Your task to perform on an android device: Open the calendar app, open the side menu, and click the "Day" option Image 0: 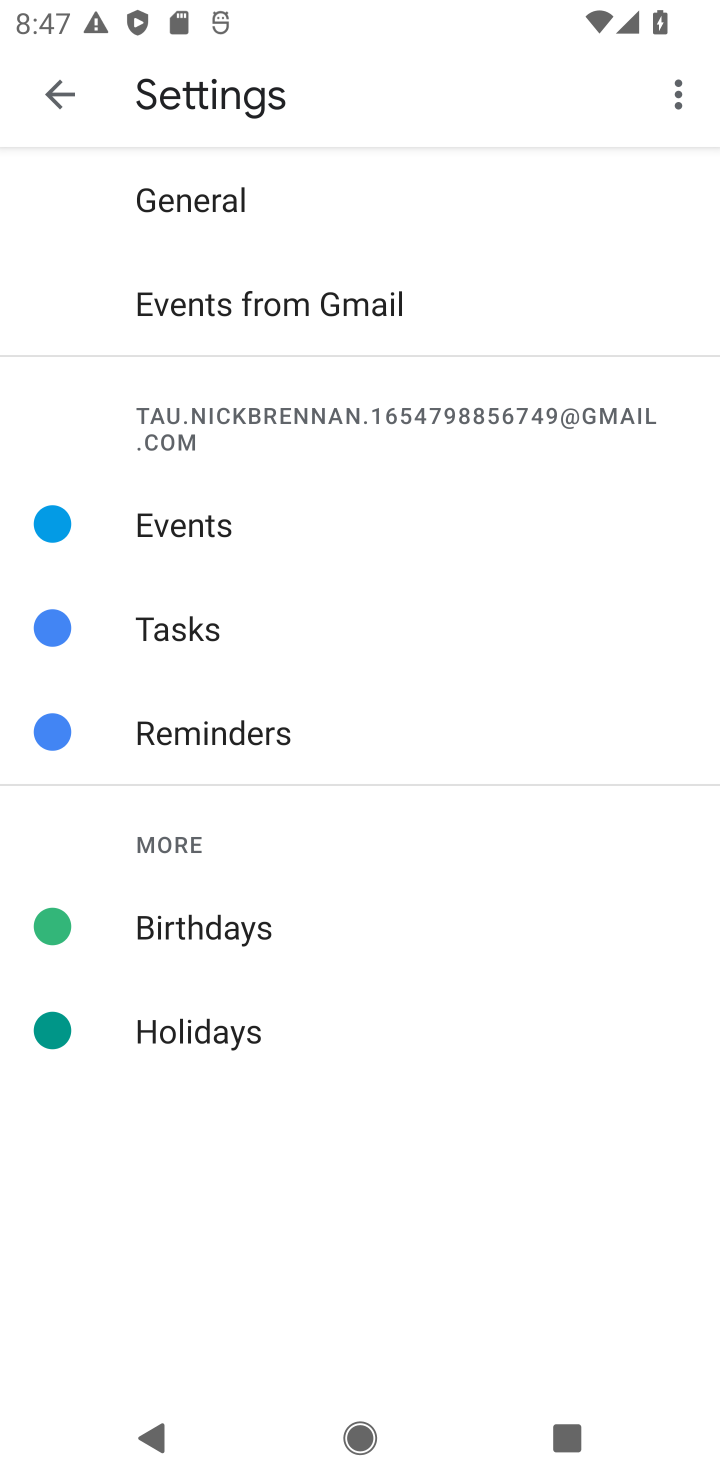
Step 0: press home button
Your task to perform on an android device: Open the calendar app, open the side menu, and click the "Day" option Image 1: 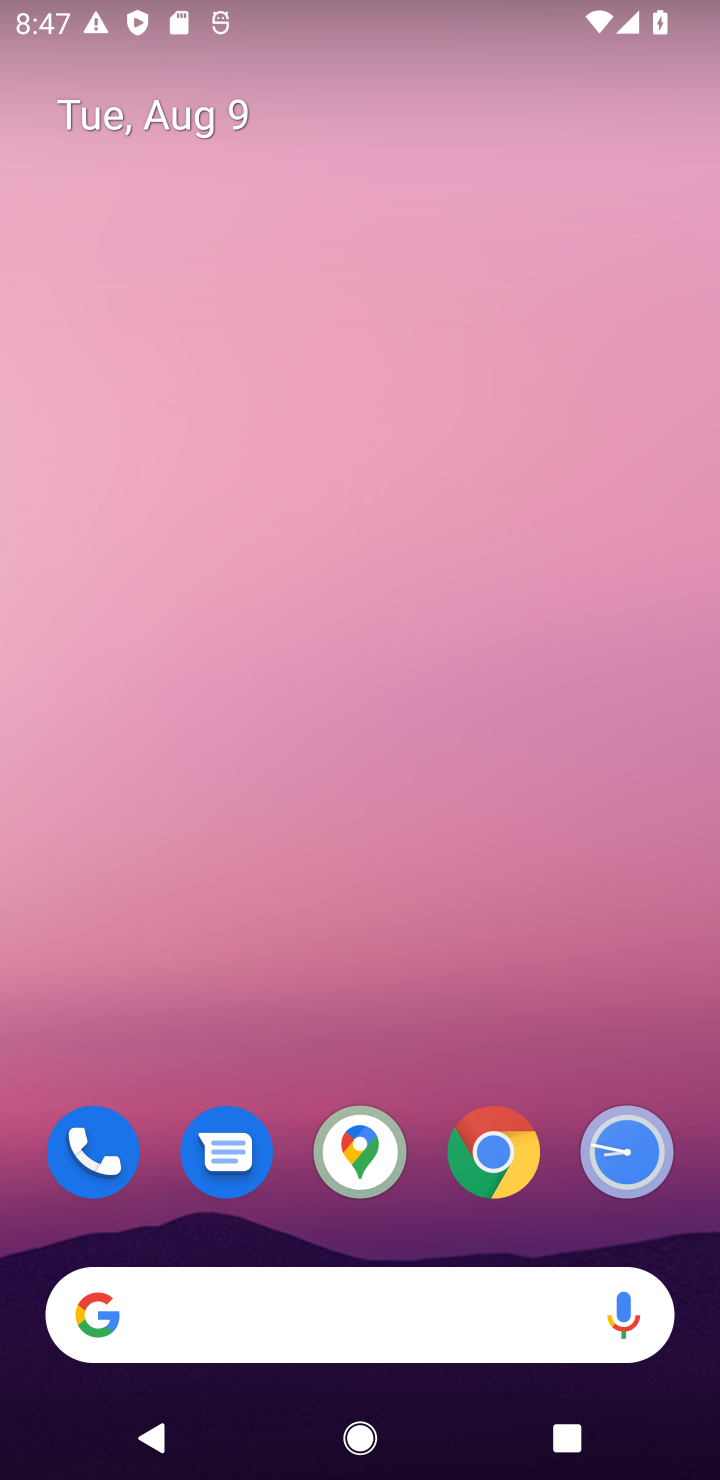
Step 1: click (137, 139)
Your task to perform on an android device: Open the calendar app, open the side menu, and click the "Day" option Image 2: 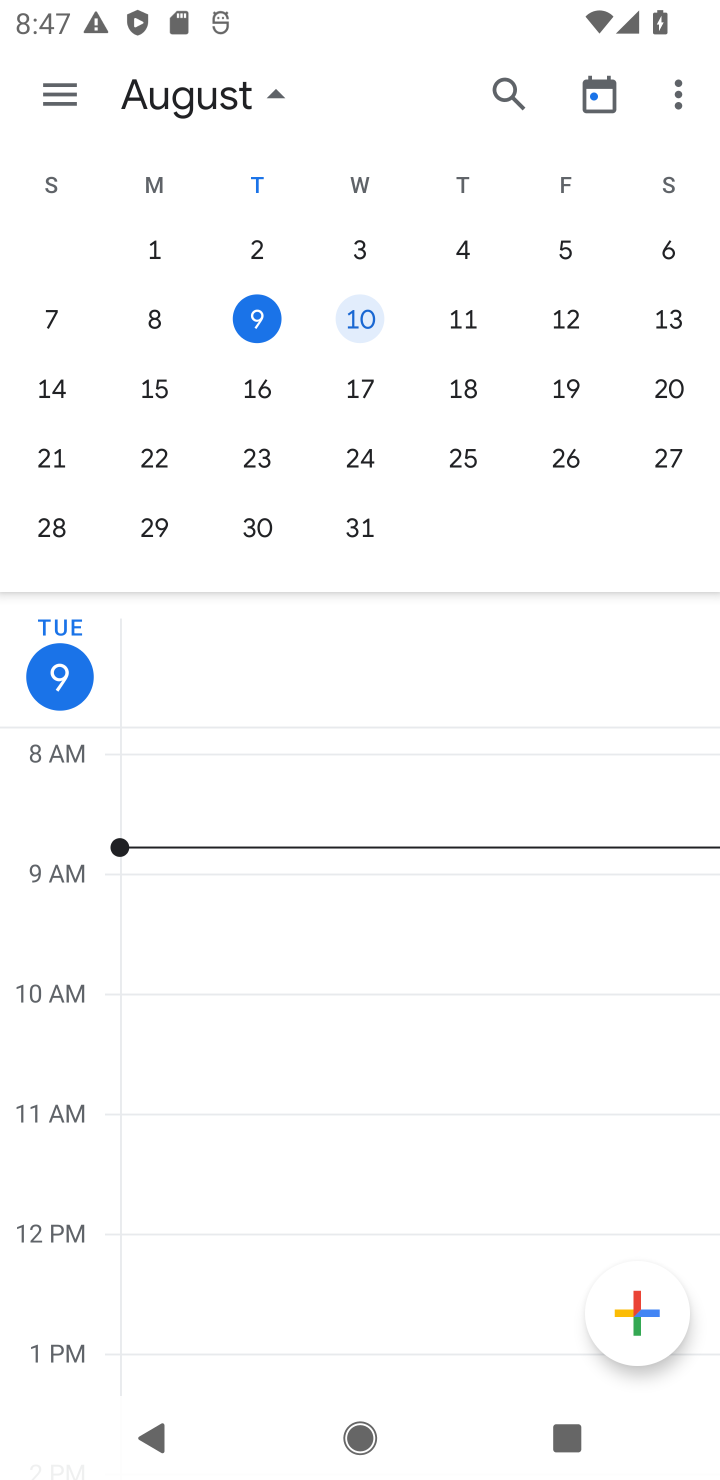
Step 2: click (65, 68)
Your task to perform on an android device: Open the calendar app, open the side menu, and click the "Day" option Image 3: 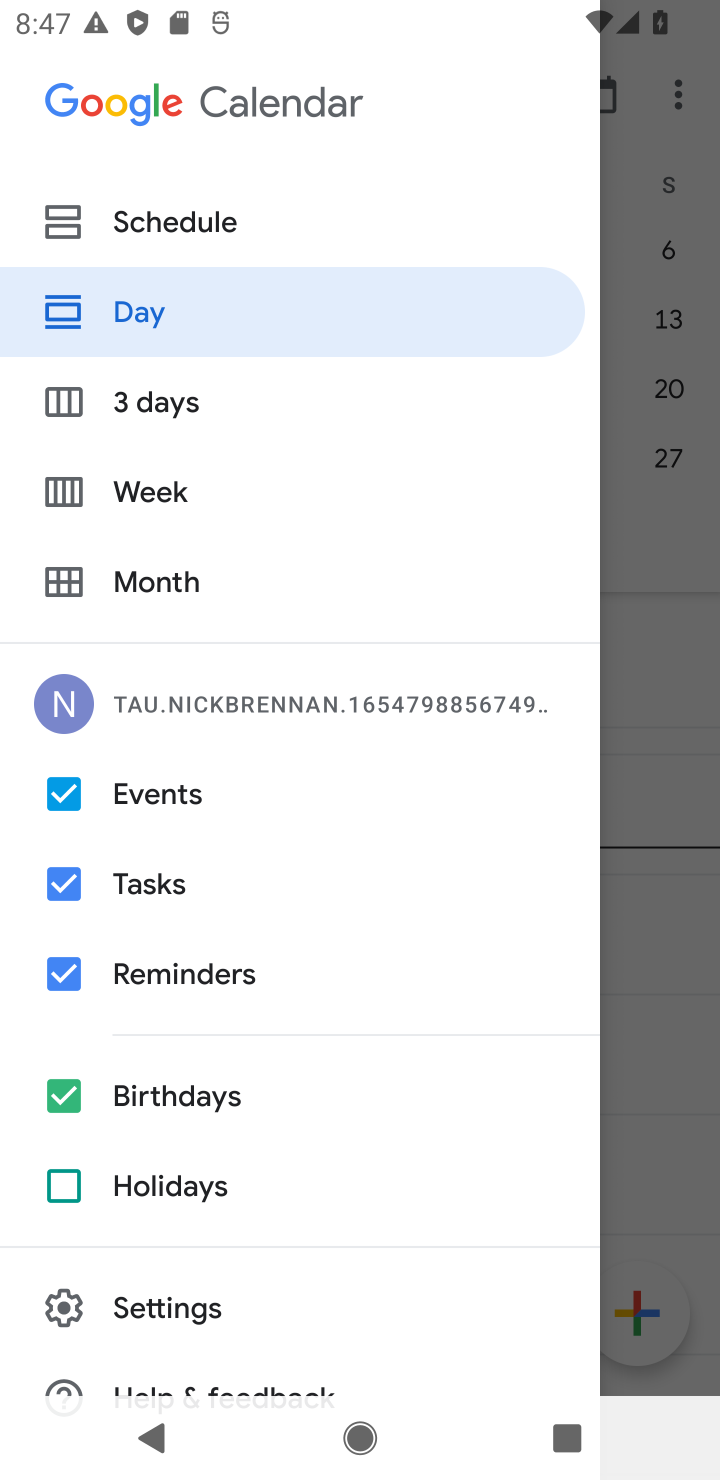
Step 3: task complete